Your task to perform on an android device: Open Chrome and go to settings Image 0: 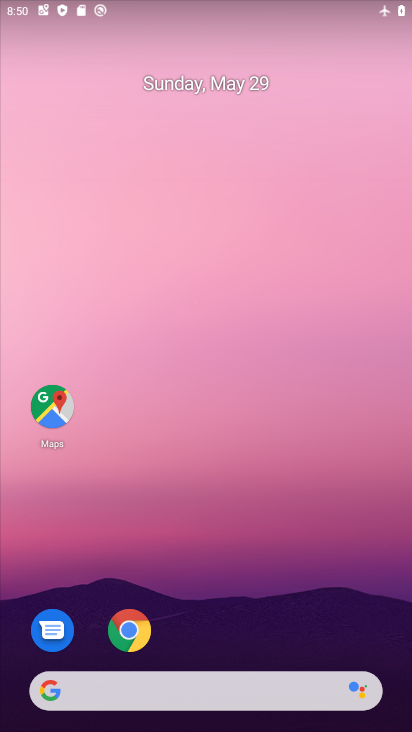
Step 0: click (141, 632)
Your task to perform on an android device: Open Chrome and go to settings Image 1: 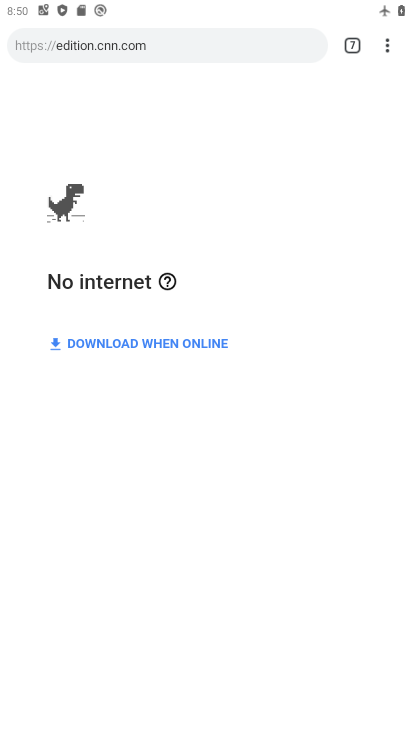
Step 1: click (384, 48)
Your task to perform on an android device: Open Chrome and go to settings Image 2: 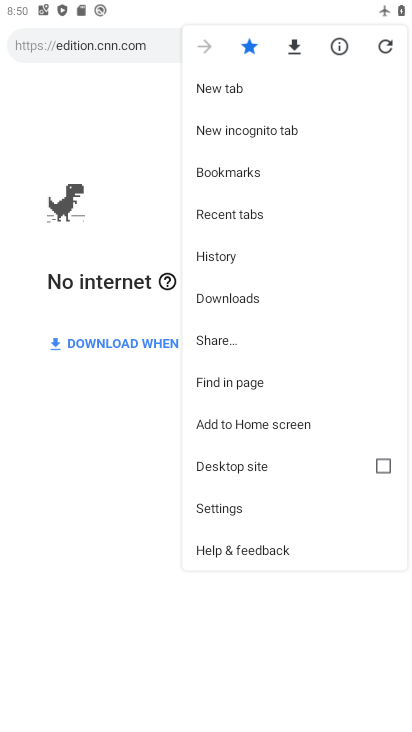
Step 2: click (234, 507)
Your task to perform on an android device: Open Chrome and go to settings Image 3: 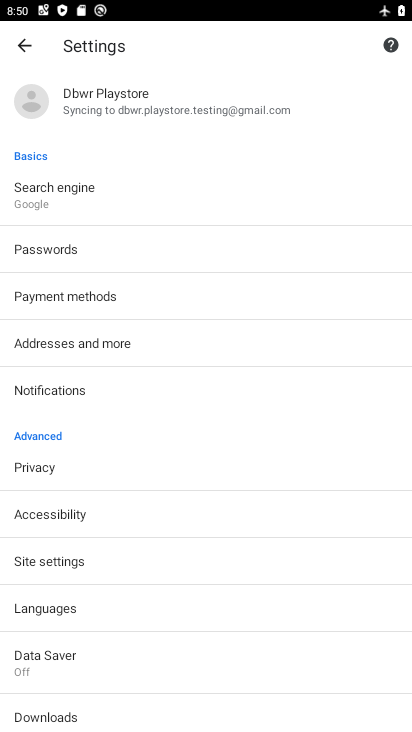
Step 3: task complete